Your task to perform on an android device: set the timer Image 0: 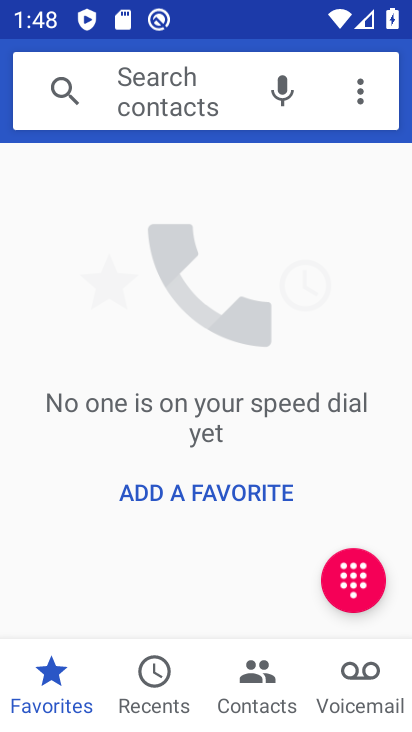
Step 0: press home button
Your task to perform on an android device: set the timer Image 1: 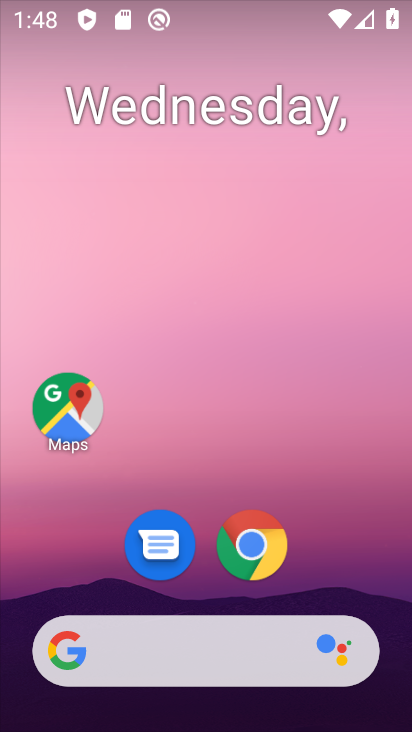
Step 1: drag from (323, 560) to (367, 91)
Your task to perform on an android device: set the timer Image 2: 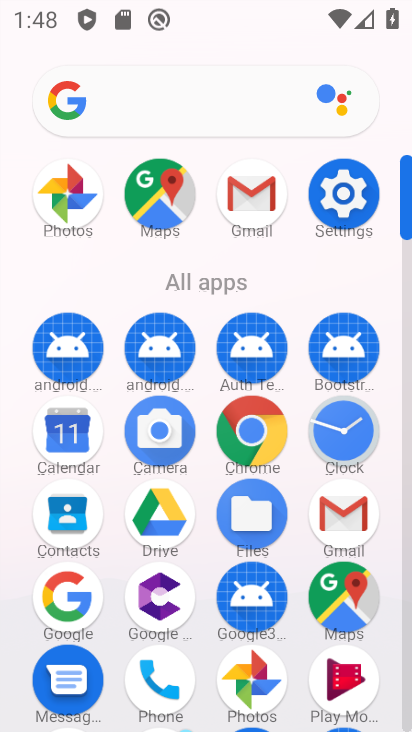
Step 2: click (343, 417)
Your task to perform on an android device: set the timer Image 3: 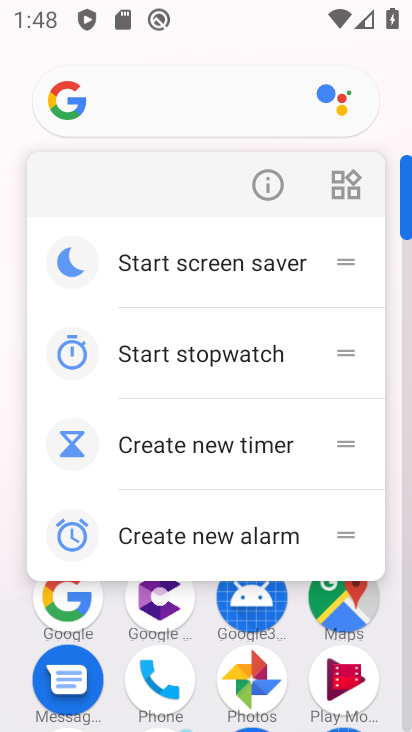
Step 3: click (240, 448)
Your task to perform on an android device: set the timer Image 4: 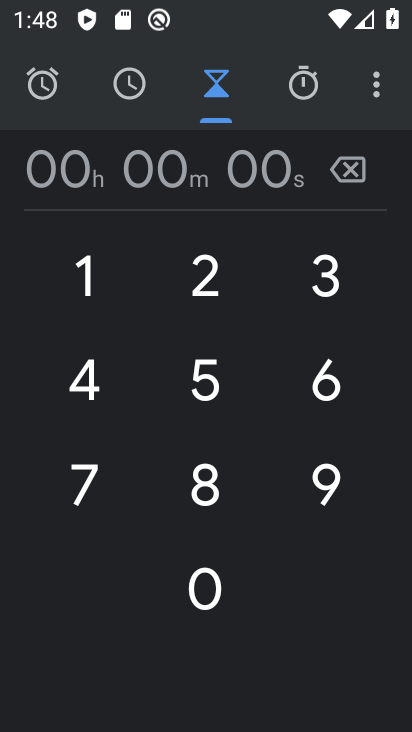
Step 4: click (183, 276)
Your task to perform on an android device: set the timer Image 5: 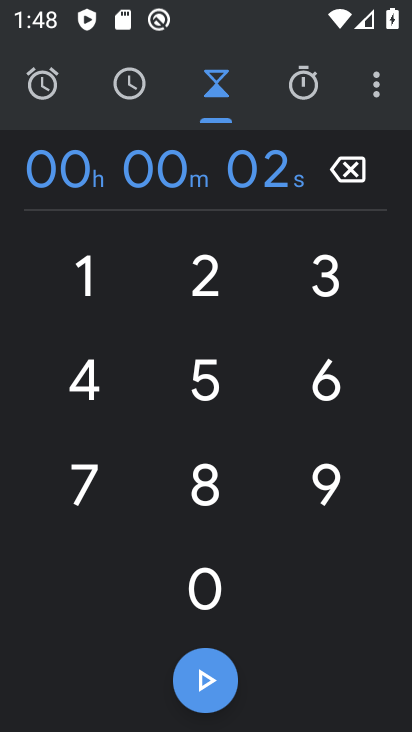
Step 5: click (183, 276)
Your task to perform on an android device: set the timer Image 6: 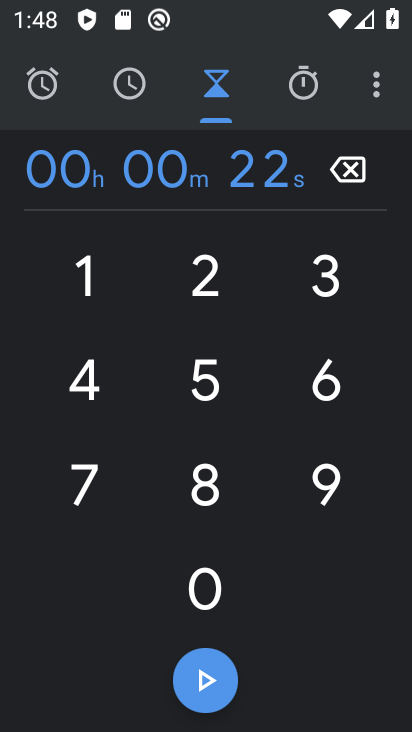
Step 6: click (219, 671)
Your task to perform on an android device: set the timer Image 7: 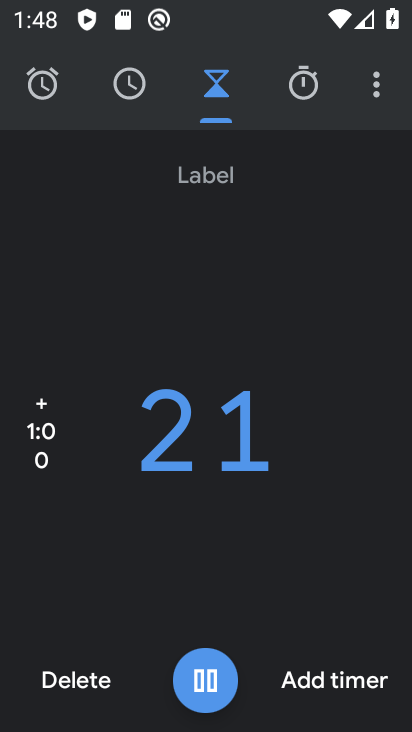
Step 7: task complete